Your task to perform on an android device: Open Google Maps and go to "Timeline" Image 0: 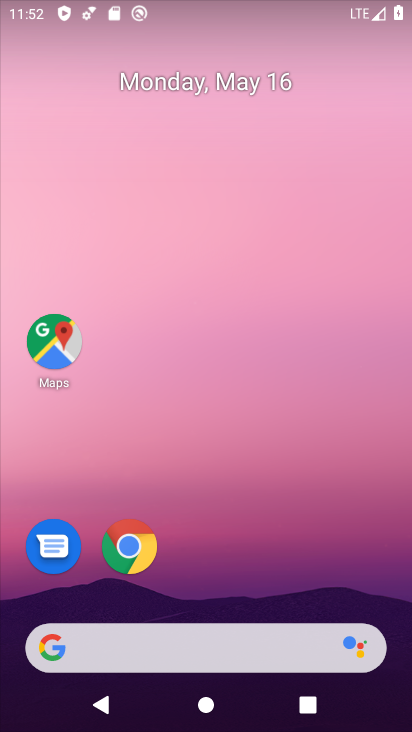
Step 0: click (53, 343)
Your task to perform on an android device: Open Google Maps and go to "Timeline" Image 1: 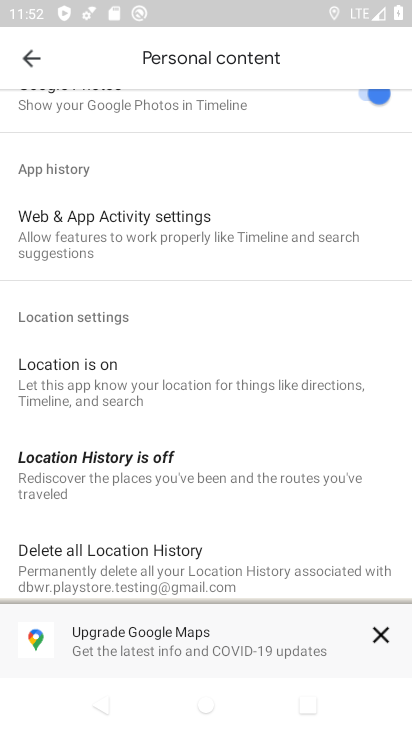
Step 1: press back button
Your task to perform on an android device: Open Google Maps and go to "Timeline" Image 2: 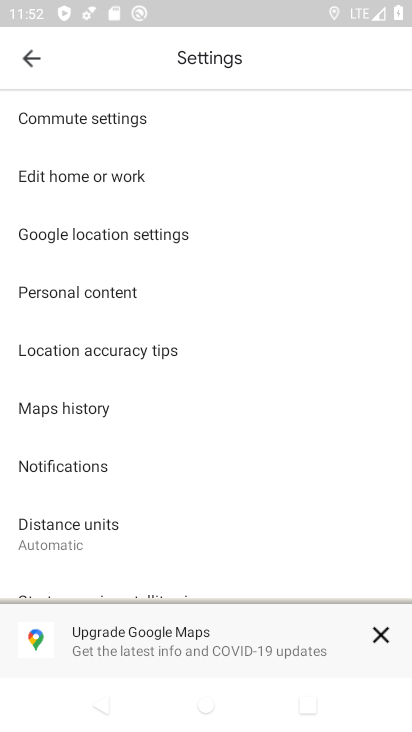
Step 2: press back button
Your task to perform on an android device: Open Google Maps and go to "Timeline" Image 3: 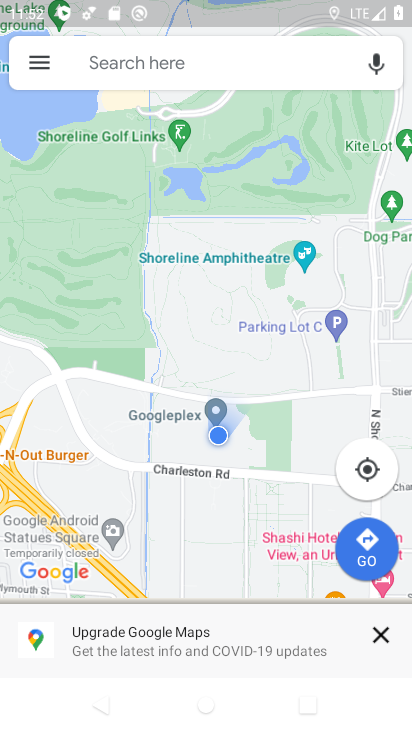
Step 3: click (32, 64)
Your task to perform on an android device: Open Google Maps and go to "Timeline" Image 4: 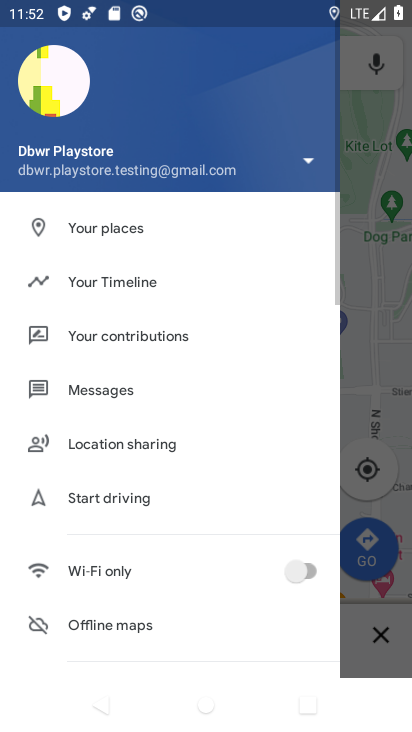
Step 4: click (109, 283)
Your task to perform on an android device: Open Google Maps and go to "Timeline" Image 5: 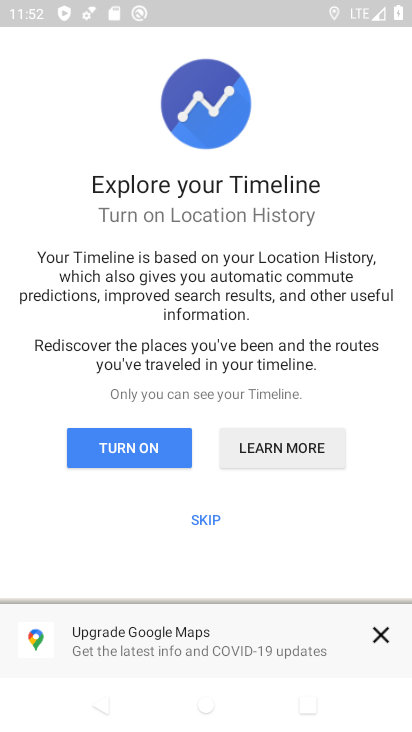
Step 5: click (202, 520)
Your task to perform on an android device: Open Google Maps and go to "Timeline" Image 6: 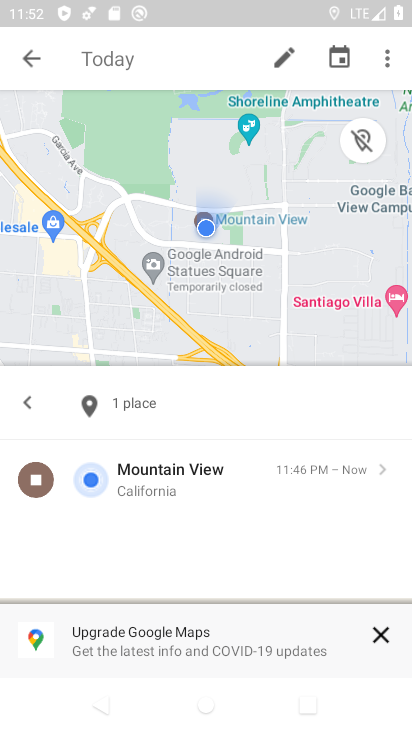
Step 6: task complete